Your task to perform on an android device: allow cookies in the chrome app Image 0: 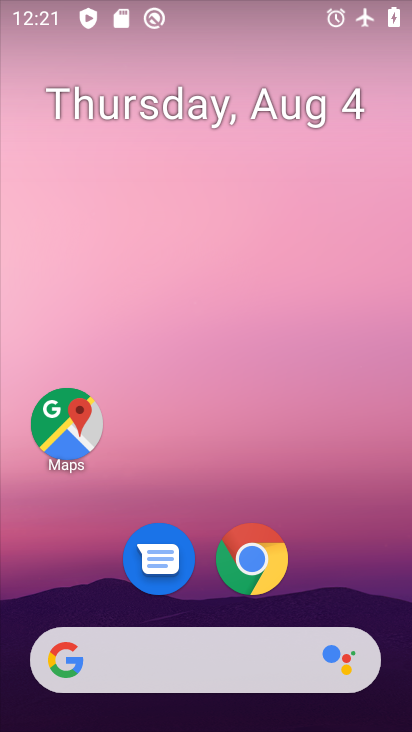
Step 0: click (249, 562)
Your task to perform on an android device: allow cookies in the chrome app Image 1: 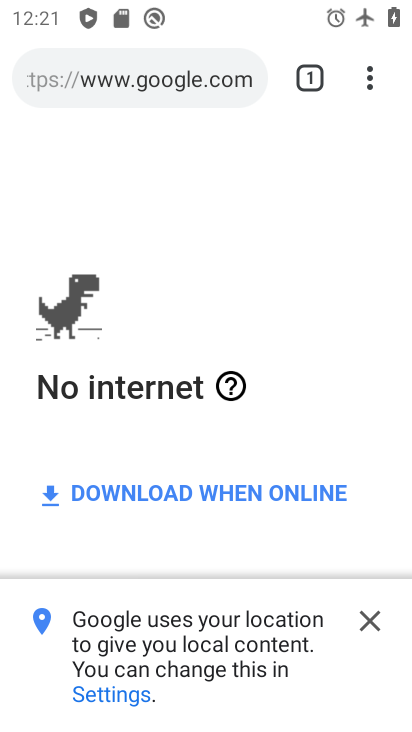
Step 1: click (369, 88)
Your task to perform on an android device: allow cookies in the chrome app Image 2: 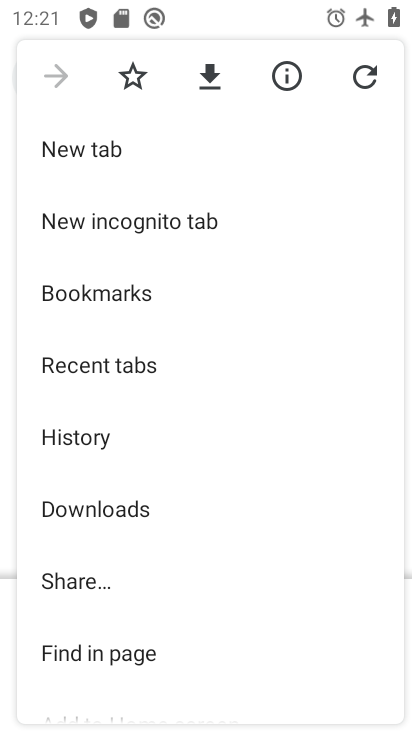
Step 2: drag from (132, 557) to (129, 424)
Your task to perform on an android device: allow cookies in the chrome app Image 3: 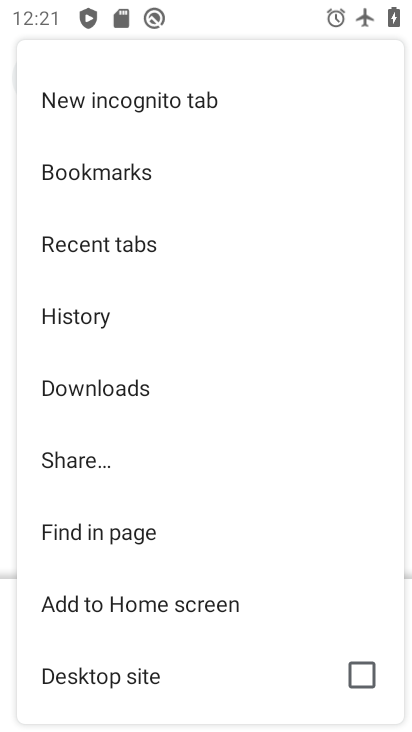
Step 3: drag from (107, 594) to (142, 454)
Your task to perform on an android device: allow cookies in the chrome app Image 4: 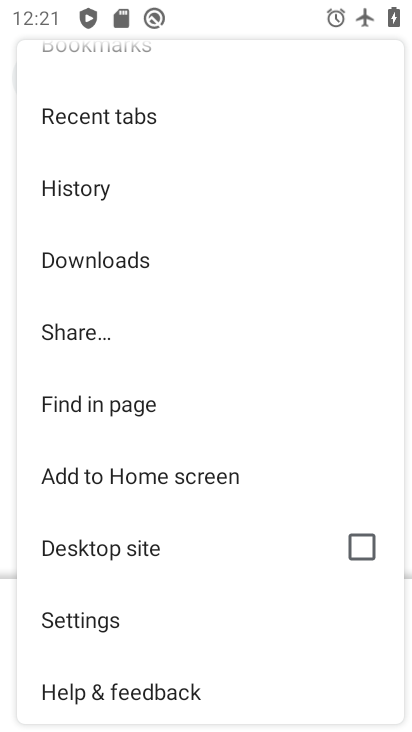
Step 4: drag from (128, 578) to (147, 449)
Your task to perform on an android device: allow cookies in the chrome app Image 5: 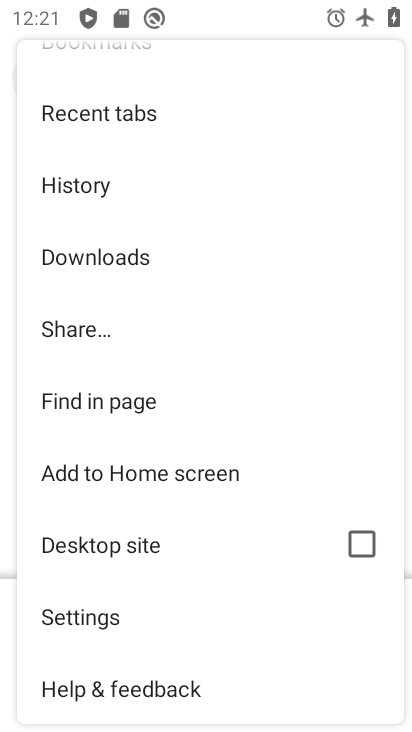
Step 5: click (102, 626)
Your task to perform on an android device: allow cookies in the chrome app Image 6: 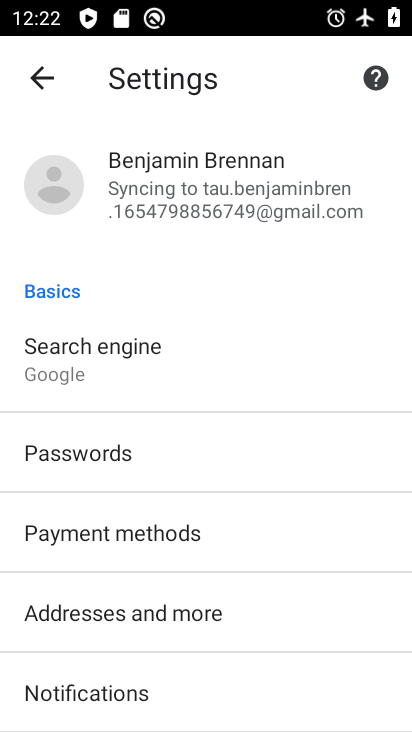
Step 6: drag from (122, 597) to (198, 496)
Your task to perform on an android device: allow cookies in the chrome app Image 7: 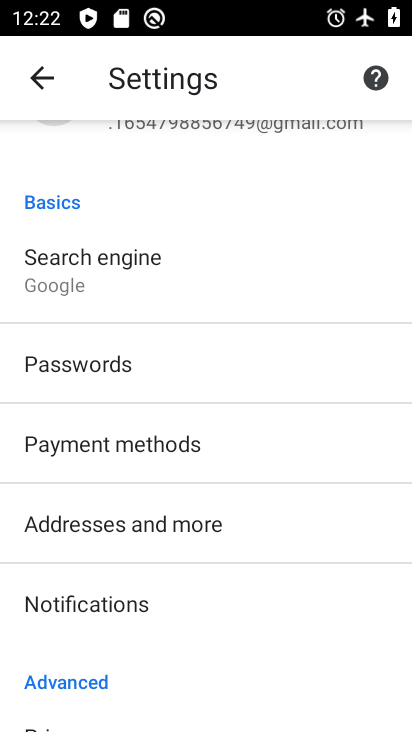
Step 7: drag from (169, 617) to (213, 525)
Your task to perform on an android device: allow cookies in the chrome app Image 8: 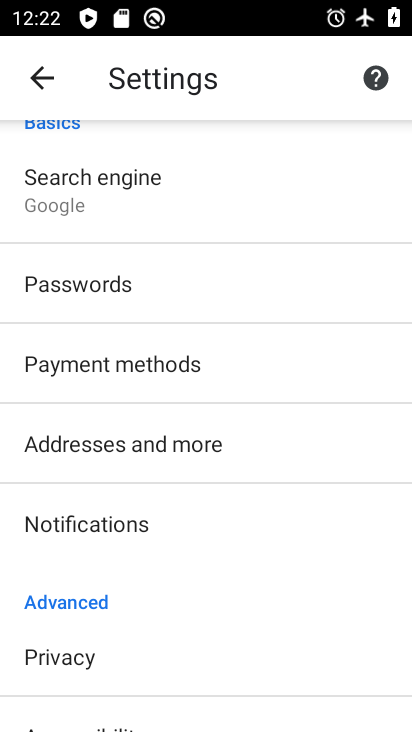
Step 8: drag from (139, 621) to (204, 482)
Your task to perform on an android device: allow cookies in the chrome app Image 9: 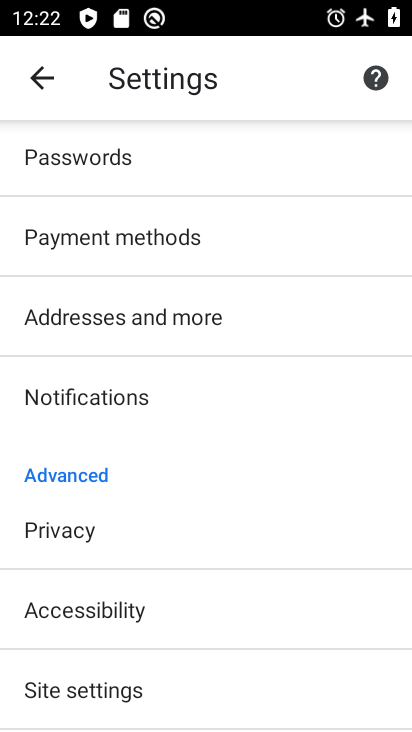
Step 9: drag from (172, 583) to (216, 474)
Your task to perform on an android device: allow cookies in the chrome app Image 10: 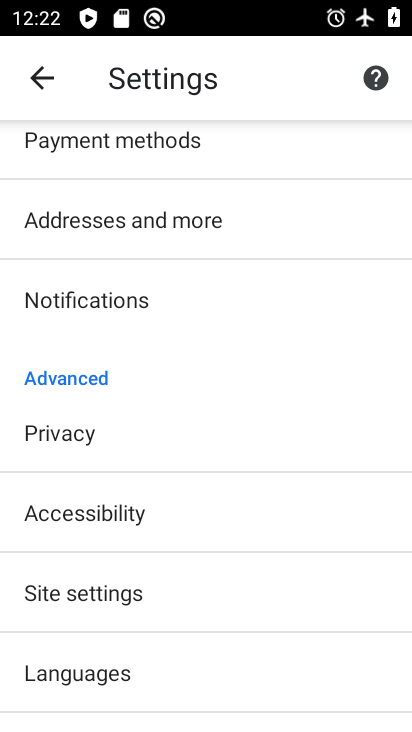
Step 10: click (74, 600)
Your task to perform on an android device: allow cookies in the chrome app Image 11: 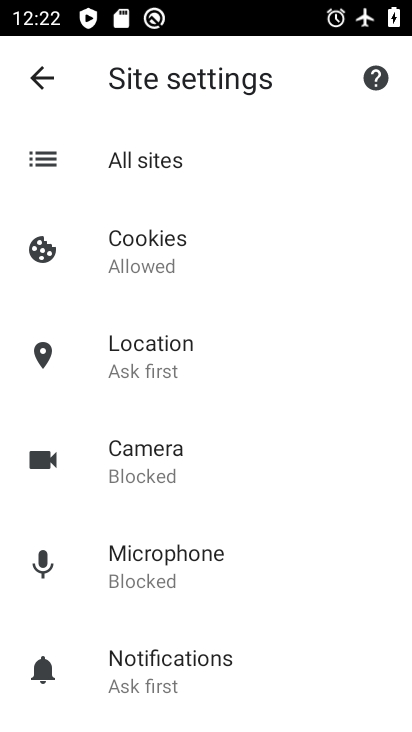
Step 11: click (172, 252)
Your task to perform on an android device: allow cookies in the chrome app Image 12: 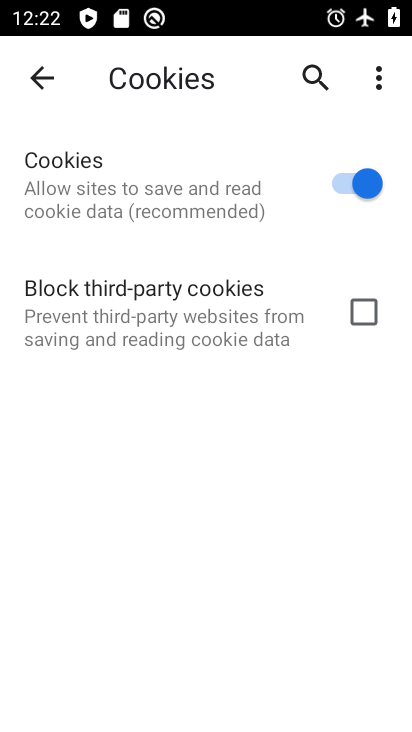
Step 12: click (378, 322)
Your task to perform on an android device: allow cookies in the chrome app Image 13: 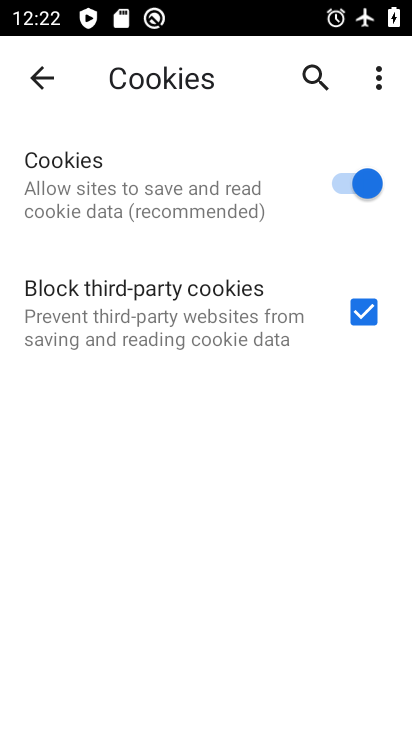
Step 13: task complete